Your task to perform on an android device: Open the web browser Image 0: 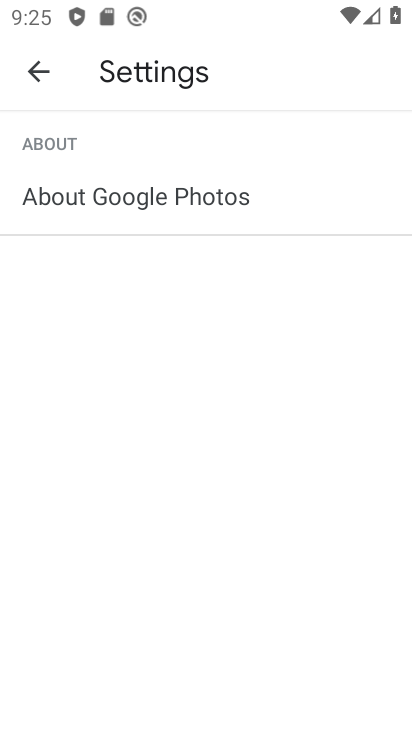
Step 0: press home button
Your task to perform on an android device: Open the web browser Image 1: 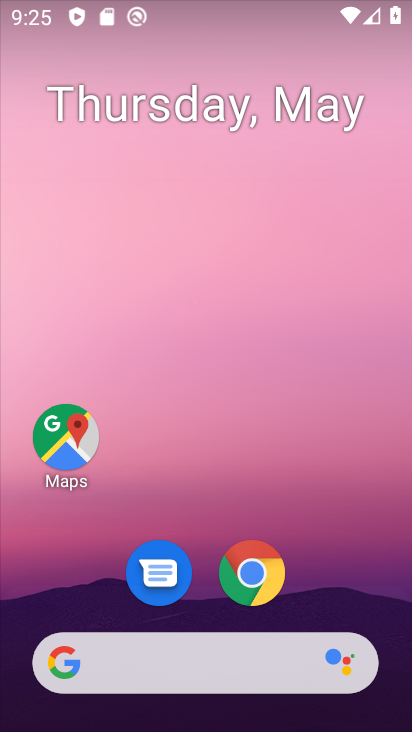
Step 1: click (244, 578)
Your task to perform on an android device: Open the web browser Image 2: 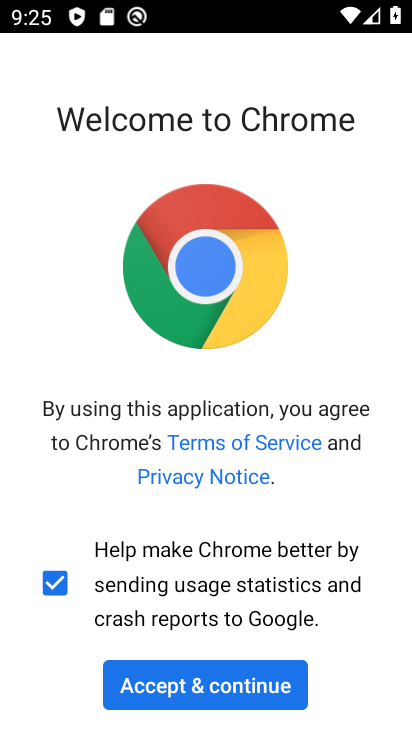
Step 2: click (212, 687)
Your task to perform on an android device: Open the web browser Image 3: 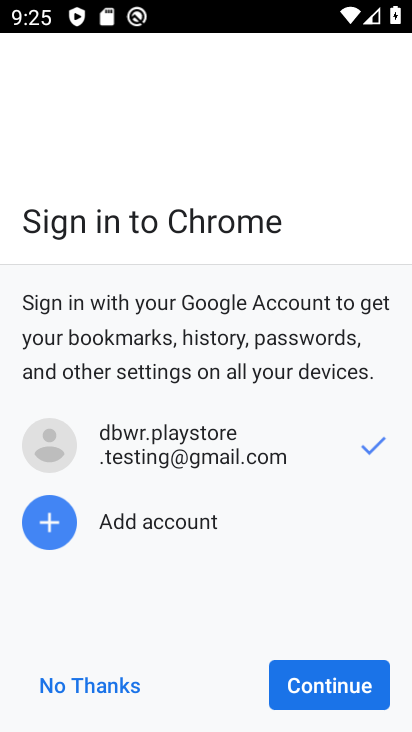
Step 3: click (327, 687)
Your task to perform on an android device: Open the web browser Image 4: 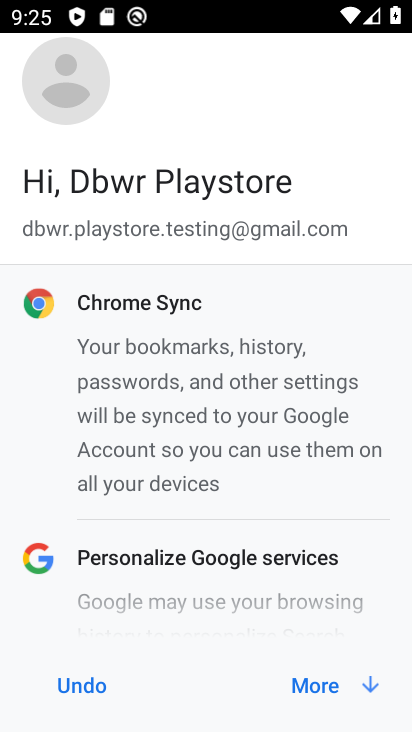
Step 4: click (327, 687)
Your task to perform on an android device: Open the web browser Image 5: 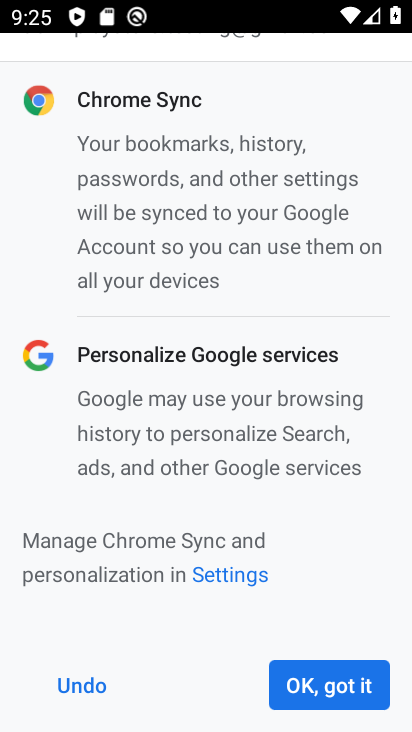
Step 5: click (327, 687)
Your task to perform on an android device: Open the web browser Image 6: 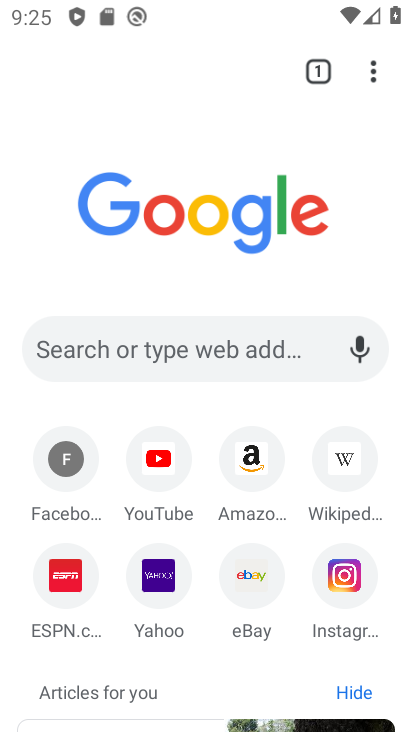
Step 6: task complete